Your task to perform on an android device: Open Wikipedia Image 0: 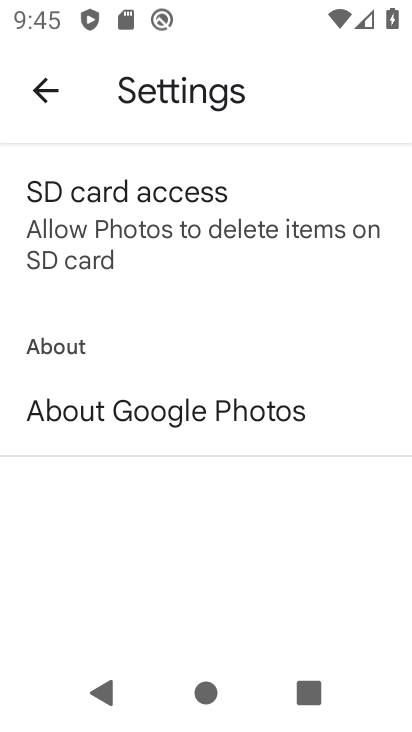
Step 0: press home button
Your task to perform on an android device: Open Wikipedia Image 1: 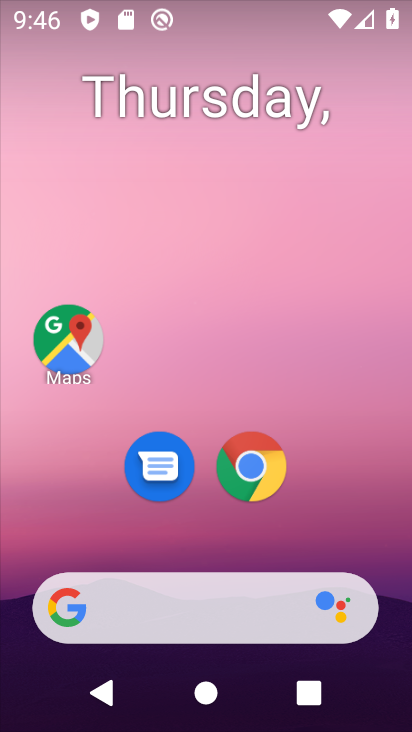
Step 1: click (264, 462)
Your task to perform on an android device: Open Wikipedia Image 2: 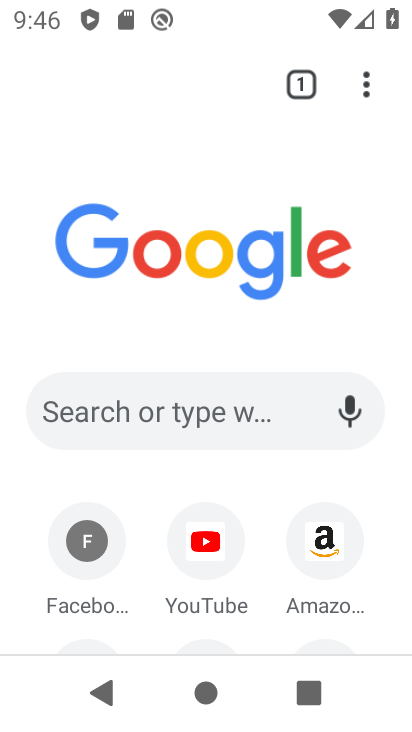
Step 2: drag from (252, 502) to (255, 222)
Your task to perform on an android device: Open Wikipedia Image 3: 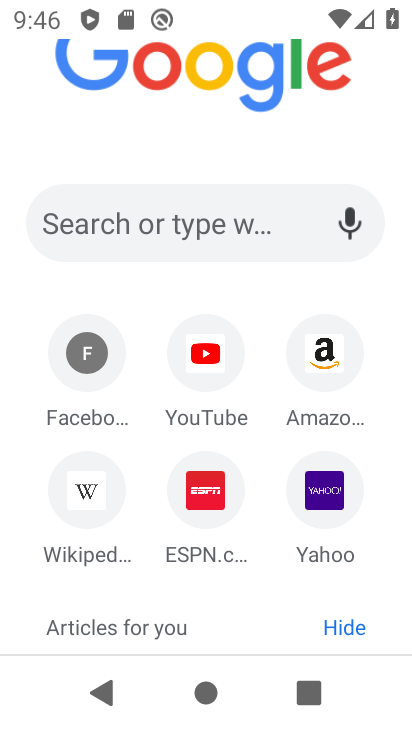
Step 3: click (90, 496)
Your task to perform on an android device: Open Wikipedia Image 4: 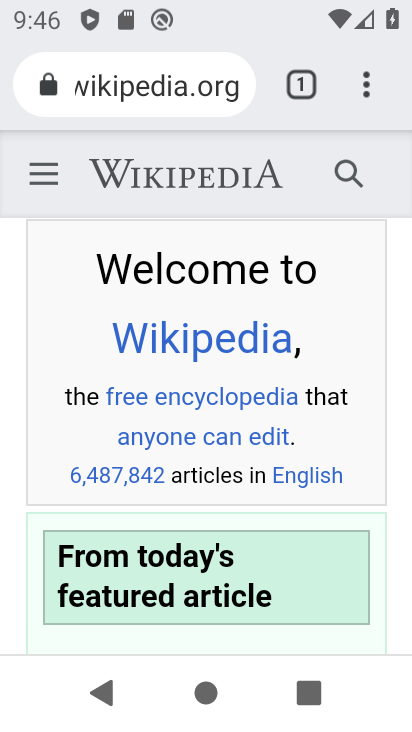
Step 4: task complete